Your task to perform on an android device: manage bookmarks in the chrome app Image 0: 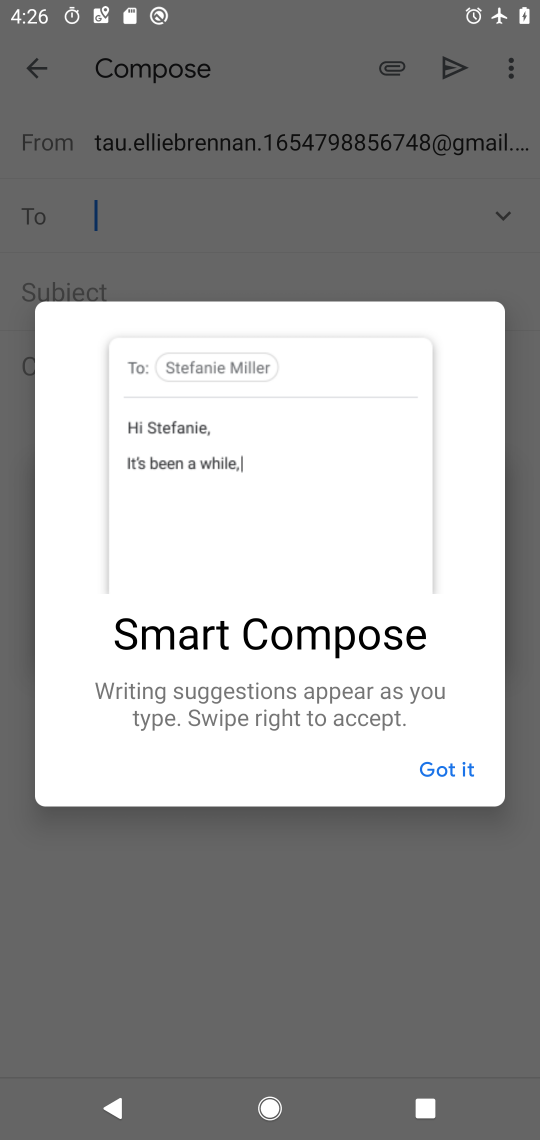
Step 0: press home button
Your task to perform on an android device: manage bookmarks in the chrome app Image 1: 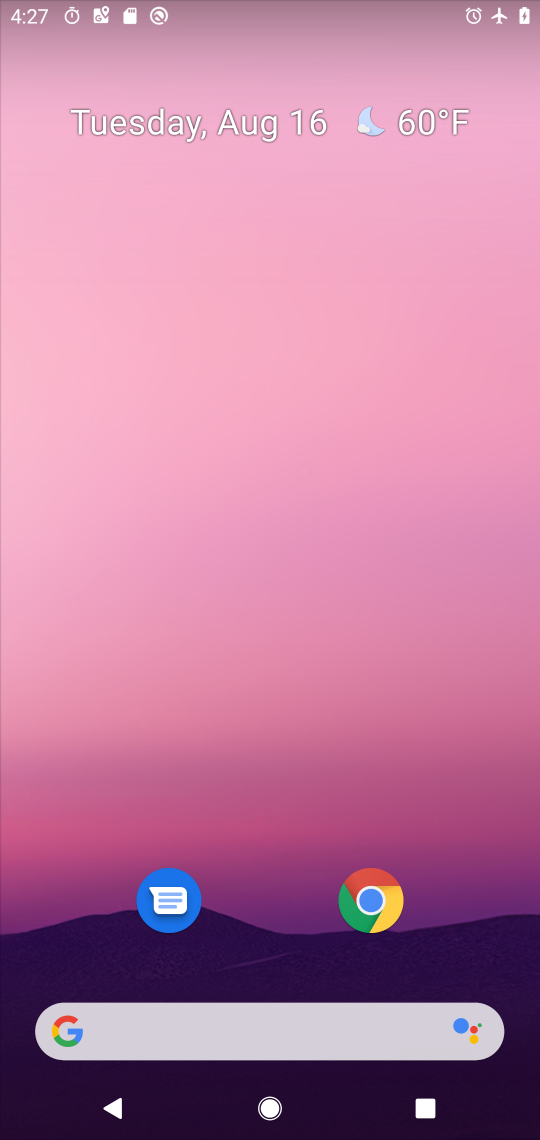
Step 1: click (372, 903)
Your task to perform on an android device: manage bookmarks in the chrome app Image 2: 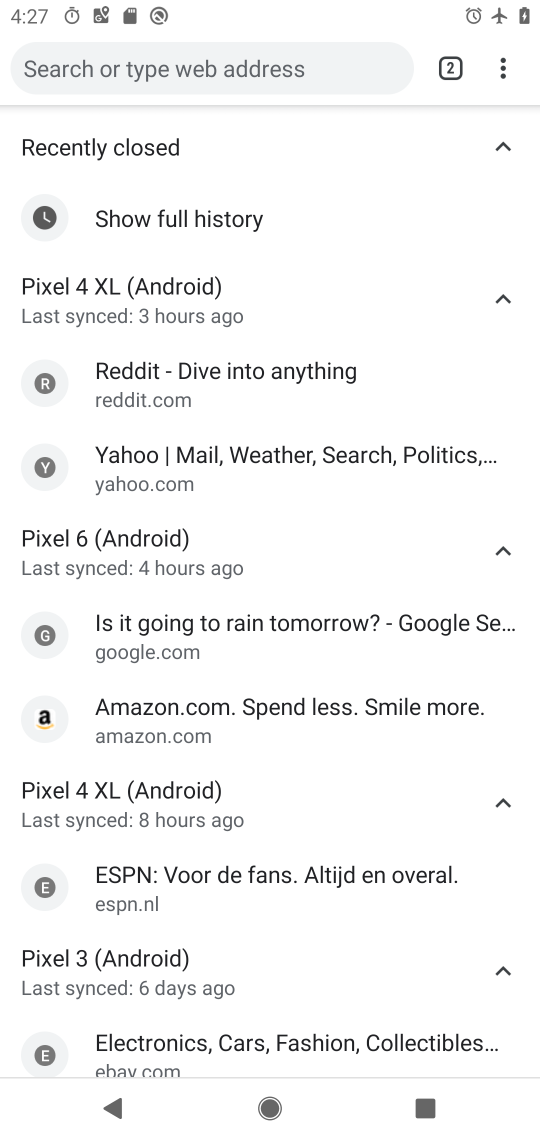
Step 2: drag from (500, 74) to (294, 334)
Your task to perform on an android device: manage bookmarks in the chrome app Image 3: 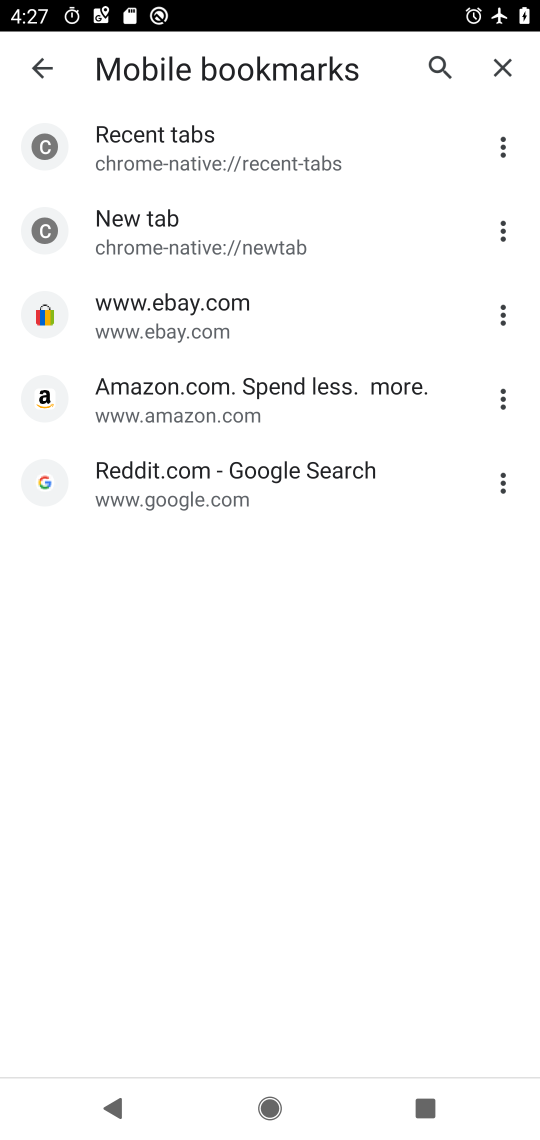
Step 3: click (496, 145)
Your task to perform on an android device: manage bookmarks in the chrome app Image 4: 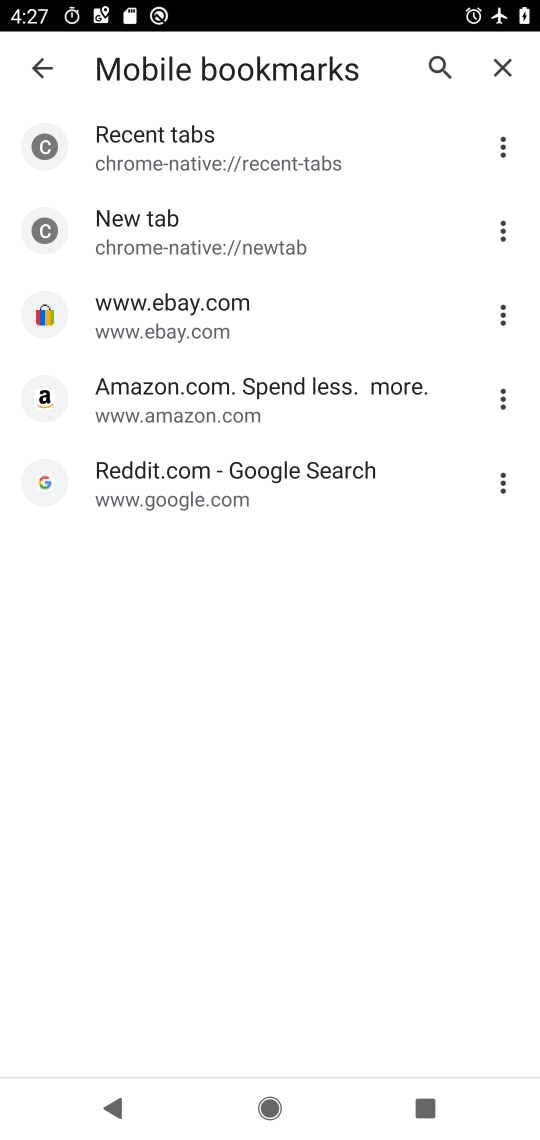
Step 4: click (496, 145)
Your task to perform on an android device: manage bookmarks in the chrome app Image 5: 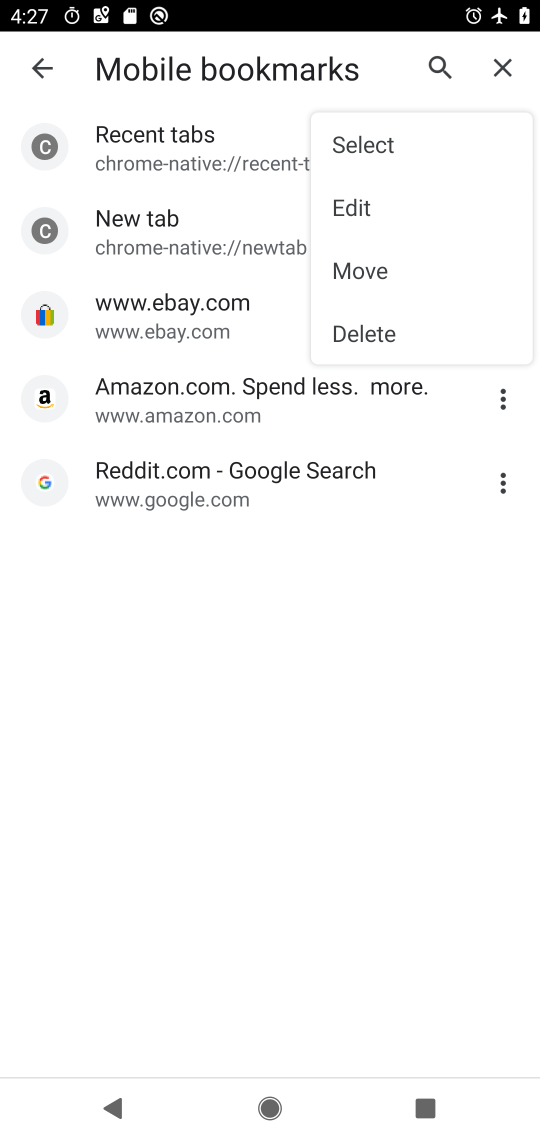
Step 5: click (369, 201)
Your task to perform on an android device: manage bookmarks in the chrome app Image 6: 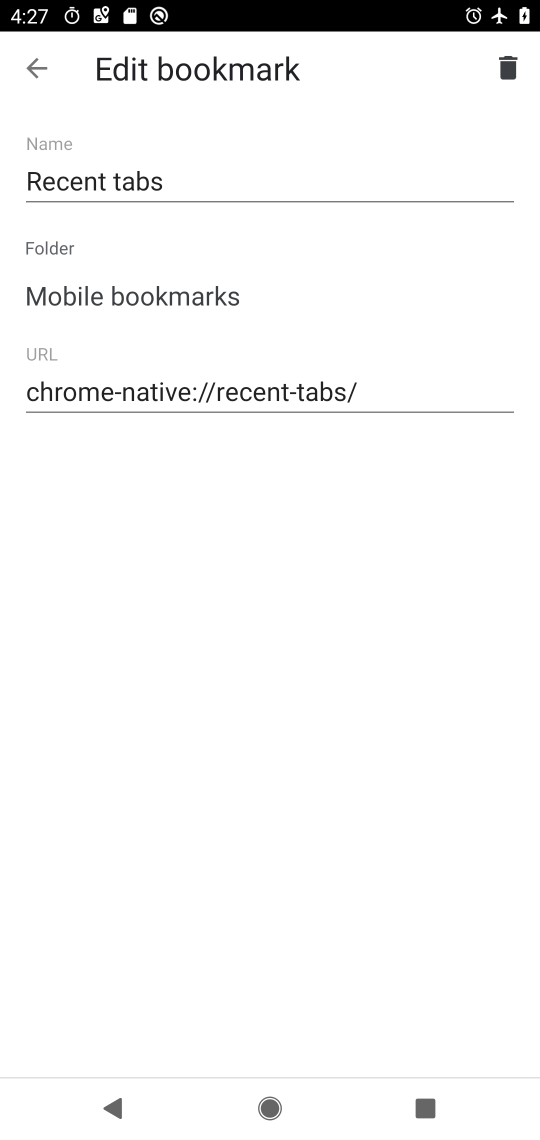
Step 6: click (117, 172)
Your task to perform on an android device: manage bookmarks in the chrome app Image 7: 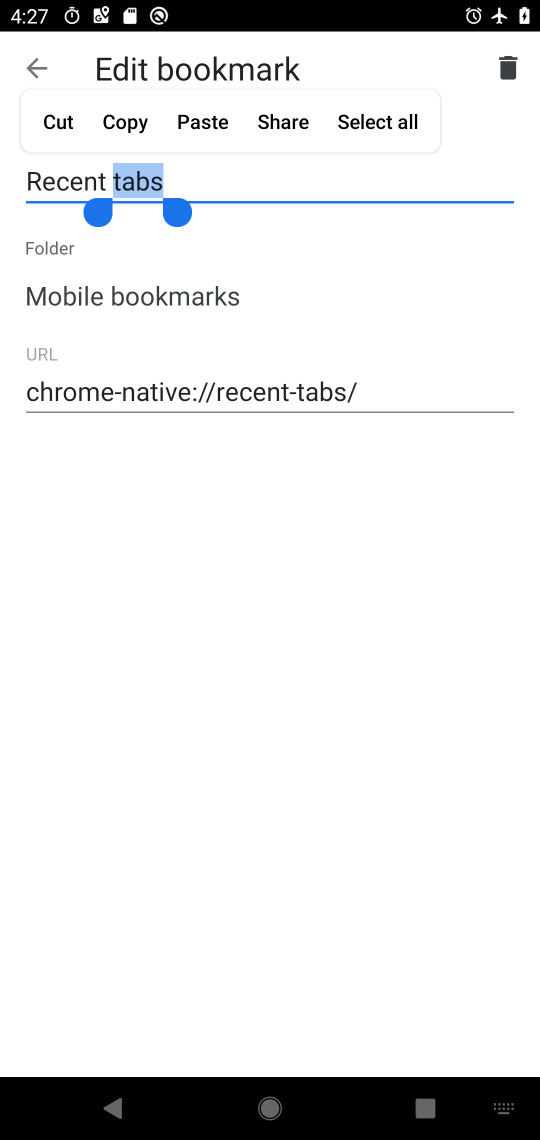
Step 7: click (61, 117)
Your task to perform on an android device: manage bookmarks in the chrome app Image 8: 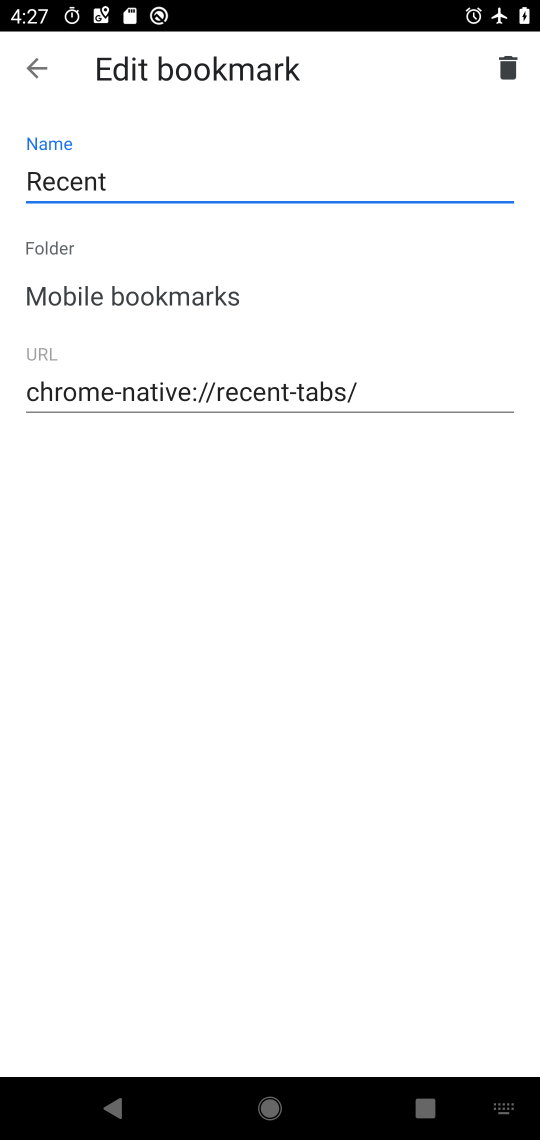
Step 8: click (33, 54)
Your task to perform on an android device: manage bookmarks in the chrome app Image 9: 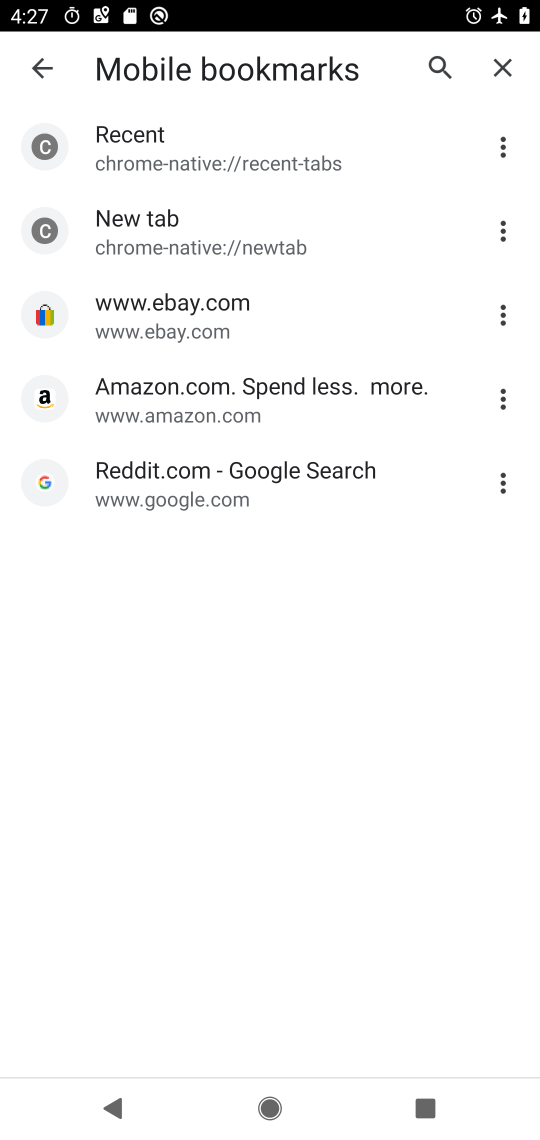
Step 9: task complete